Your task to perform on an android device: all mails in gmail Image 0: 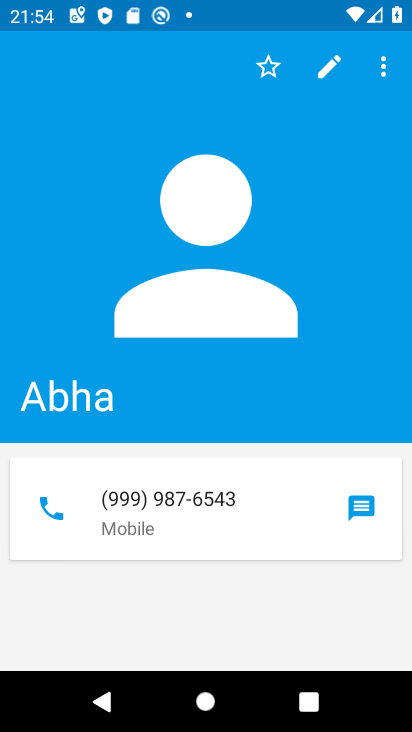
Step 0: press home button
Your task to perform on an android device: all mails in gmail Image 1: 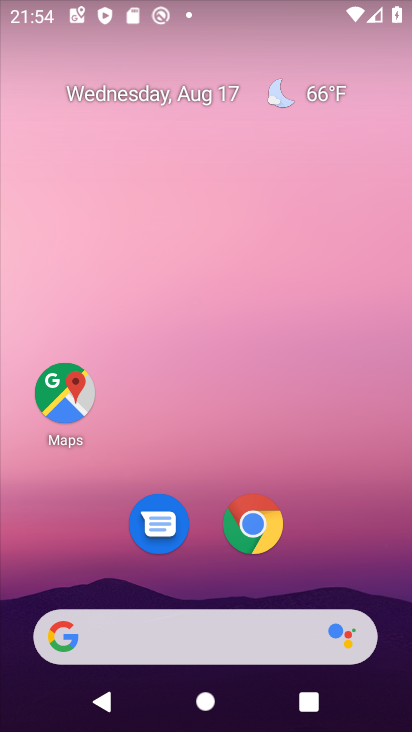
Step 1: drag from (331, 525) to (345, 3)
Your task to perform on an android device: all mails in gmail Image 2: 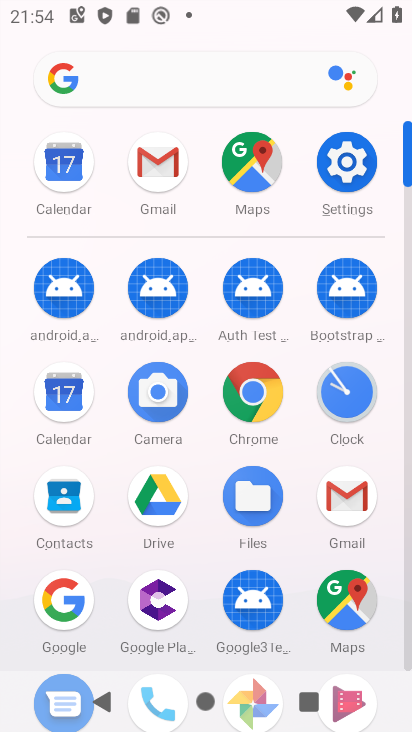
Step 2: click (158, 172)
Your task to perform on an android device: all mails in gmail Image 3: 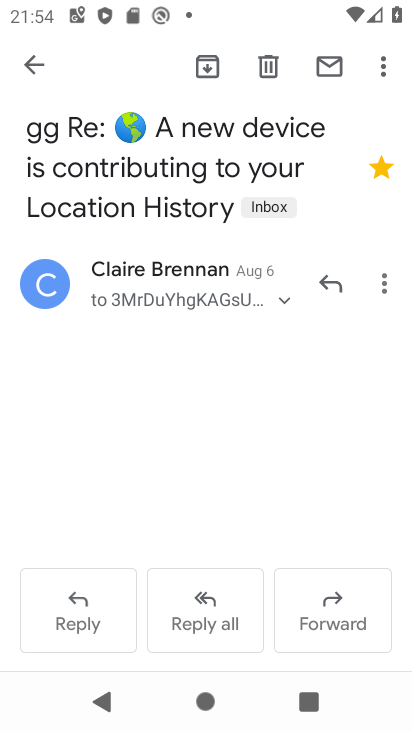
Step 3: click (35, 53)
Your task to perform on an android device: all mails in gmail Image 4: 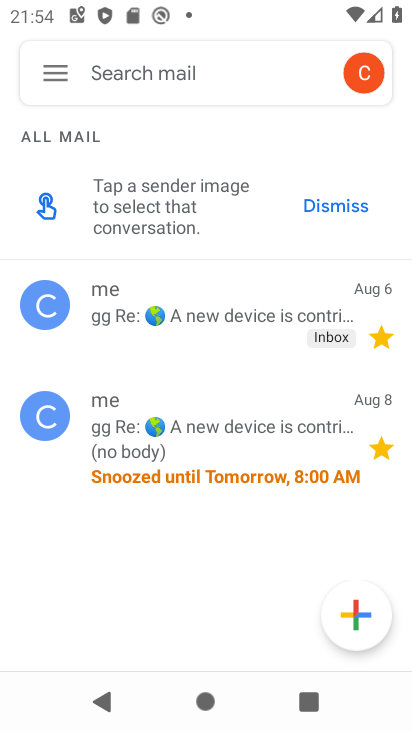
Step 4: task complete